Your task to perform on an android device: Go to Wikipedia Image 0: 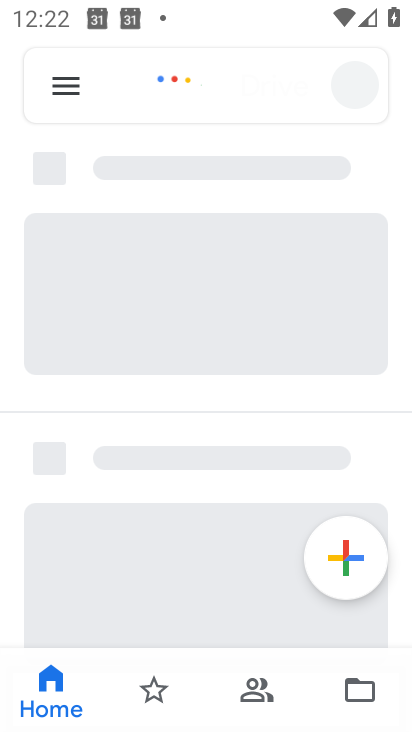
Step 0: press home button
Your task to perform on an android device: Go to Wikipedia Image 1: 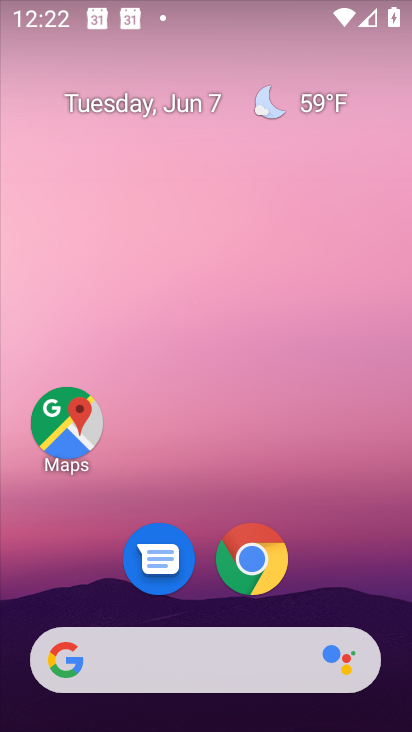
Step 1: drag from (348, 584) to (369, 506)
Your task to perform on an android device: Go to Wikipedia Image 2: 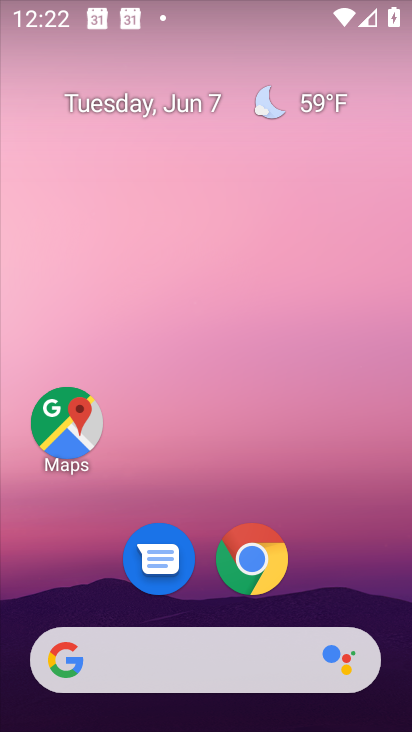
Step 2: click (204, 643)
Your task to perform on an android device: Go to Wikipedia Image 3: 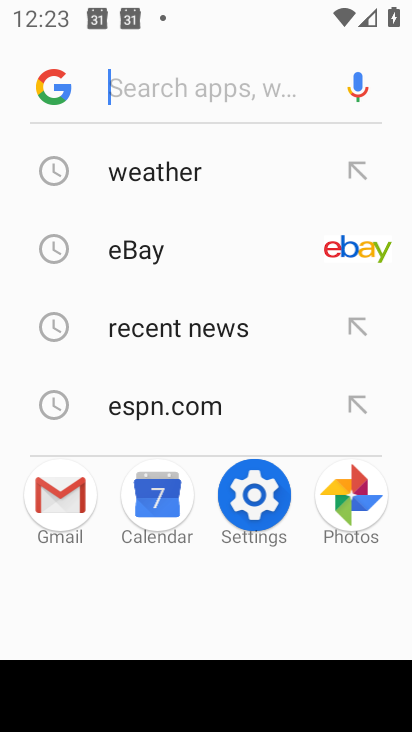
Step 3: click (154, 81)
Your task to perform on an android device: Go to Wikipedia Image 4: 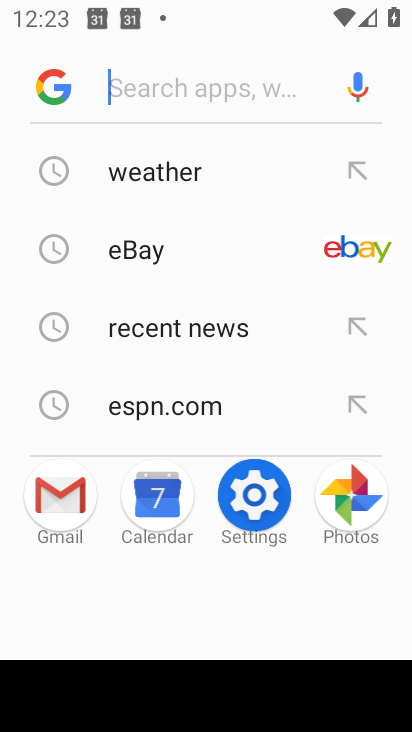
Step 4: type "wikipedia"
Your task to perform on an android device: Go to Wikipedia Image 5: 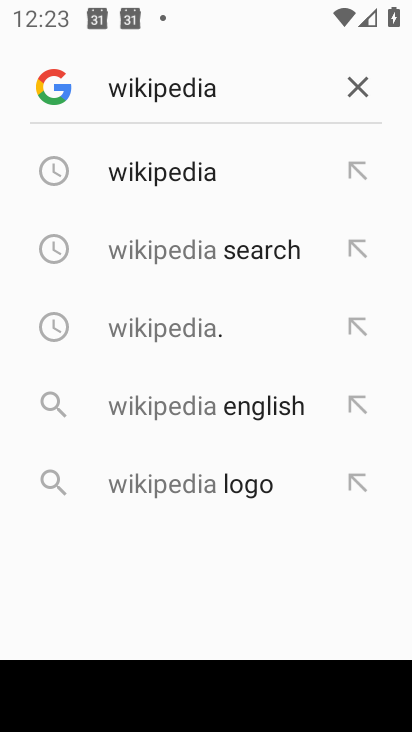
Step 5: click (227, 172)
Your task to perform on an android device: Go to Wikipedia Image 6: 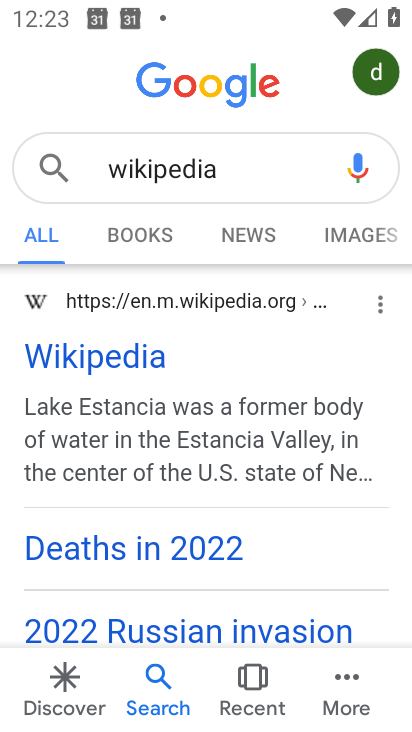
Step 6: task complete